Your task to perform on an android device: What's the weather? Image 0: 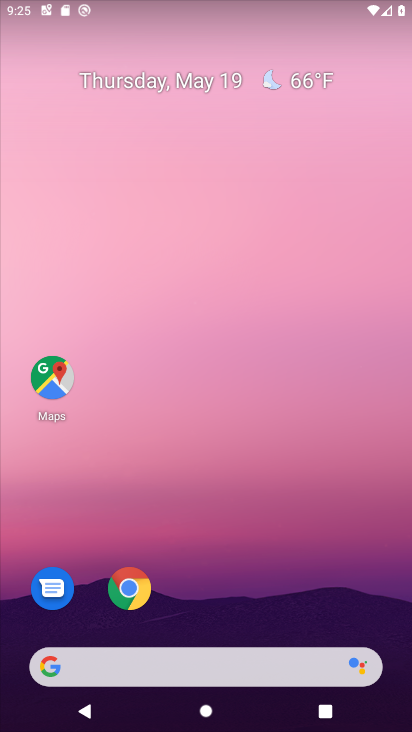
Step 0: click (245, 662)
Your task to perform on an android device: What's the weather? Image 1: 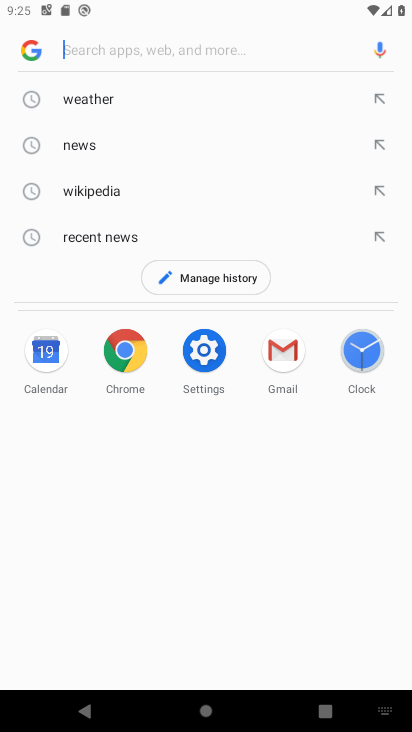
Step 1: click (132, 105)
Your task to perform on an android device: What's the weather? Image 2: 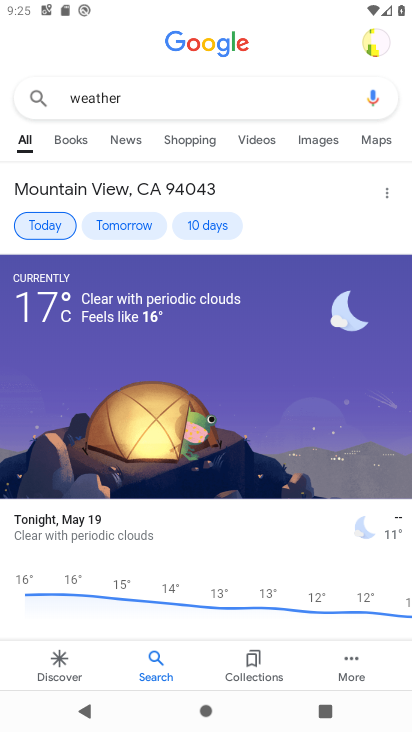
Step 2: task complete